Your task to perform on an android device: Open the calendar app, open the side menu, and click the "Day" option Image 0: 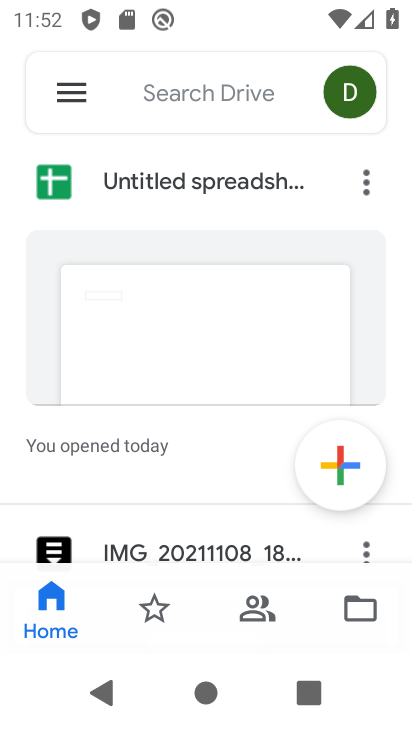
Step 0: press home button
Your task to perform on an android device: Open the calendar app, open the side menu, and click the "Day" option Image 1: 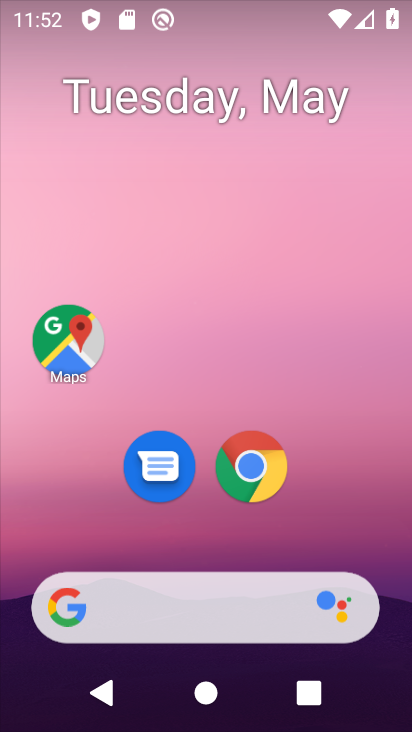
Step 1: drag from (250, 560) to (241, 28)
Your task to perform on an android device: Open the calendar app, open the side menu, and click the "Day" option Image 2: 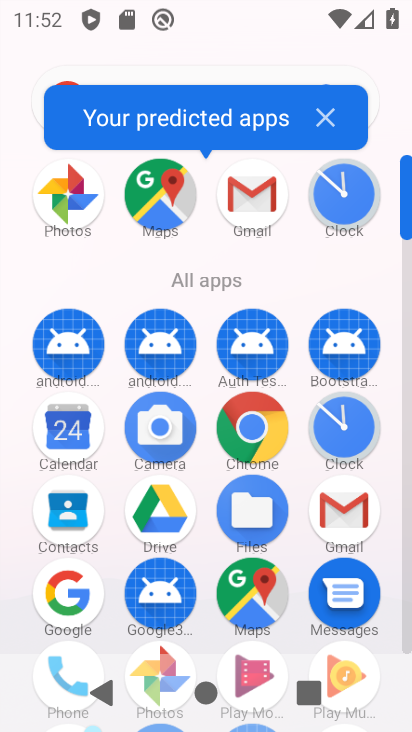
Step 2: click (85, 409)
Your task to perform on an android device: Open the calendar app, open the side menu, and click the "Day" option Image 3: 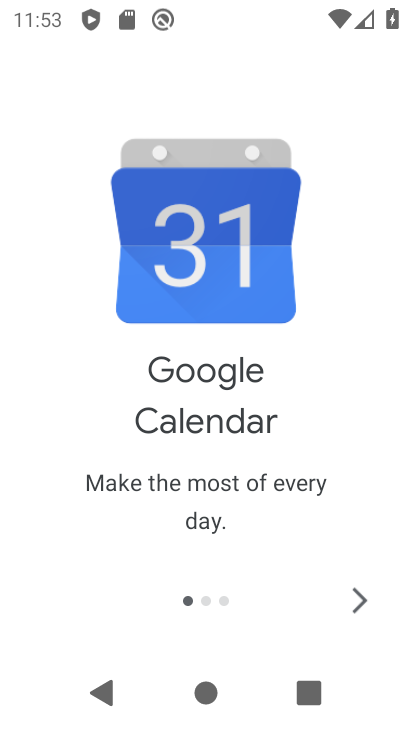
Step 3: click (382, 627)
Your task to perform on an android device: Open the calendar app, open the side menu, and click the "Day" option Image 4: 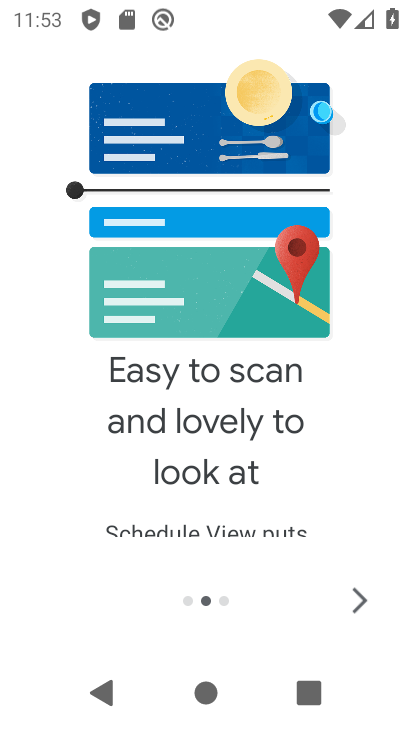
Step 4: click (348, 595)
Your task to perform on an android device: Open the calendar app, open the side menu, and click the "Day" option Image 5: 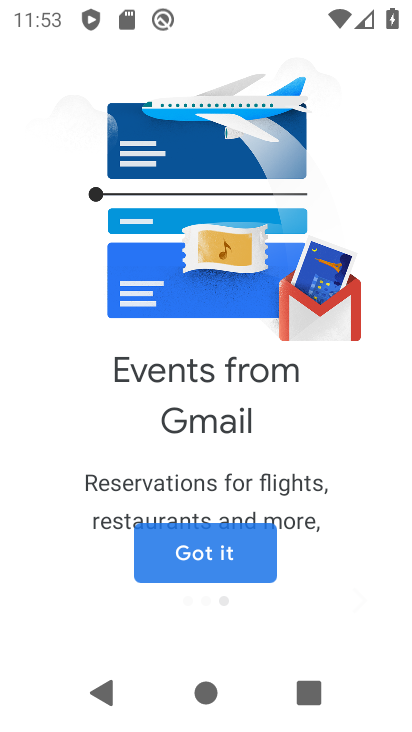
Step 5: click (349, 609)
Your task to perform on an android device: Open the calendar app, open the side menu, and click the "Day" option Image 6: 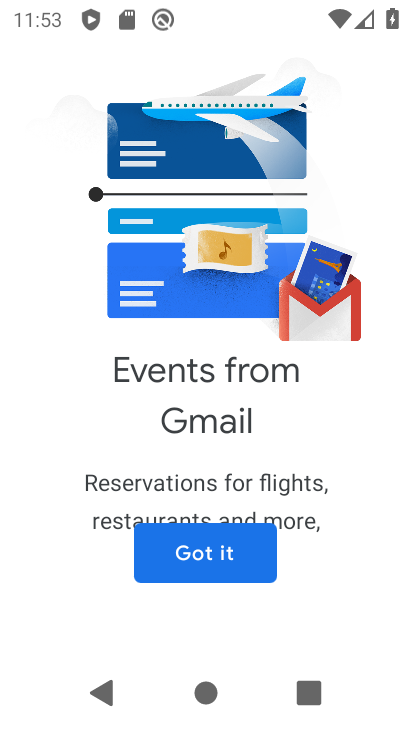
Step 6: click (231, 531)
Your task to perform on an android device: Open the calendar app, open the side menu, and click the "Day" option Image 7: 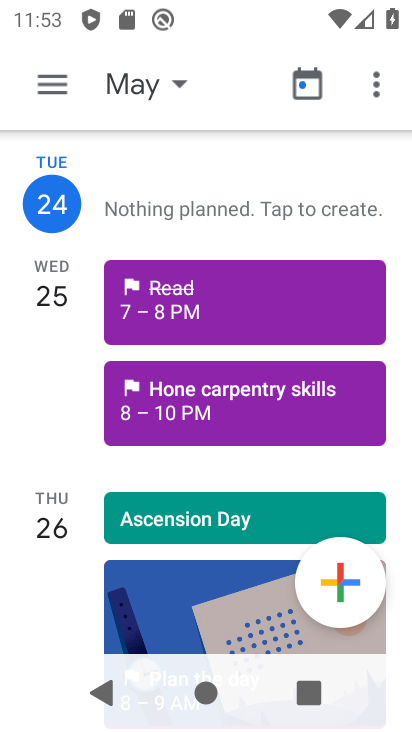
Step 7: click (55, 103)
Your task to perform on an android device: Open the calendar app, open the side menu, and click the "Day" option Image 8: 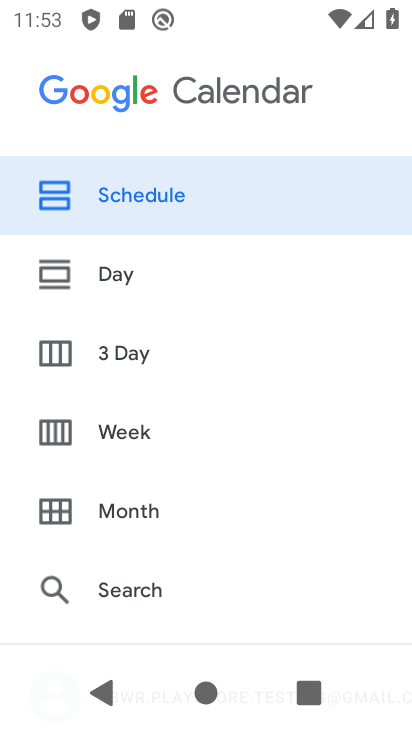
Step 8: click (55, 103)
Your task to perform on an android device: Open the calendar app, open the side menu, and click the "Day" option Image 9: 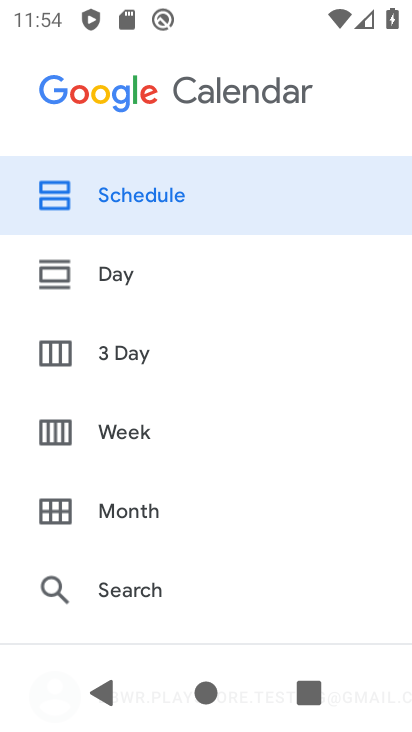
Step 9: click (280, 252)
Your task to perform on an android device: Open the calendar app, open the side menu, and click the "Day" option Image 10: 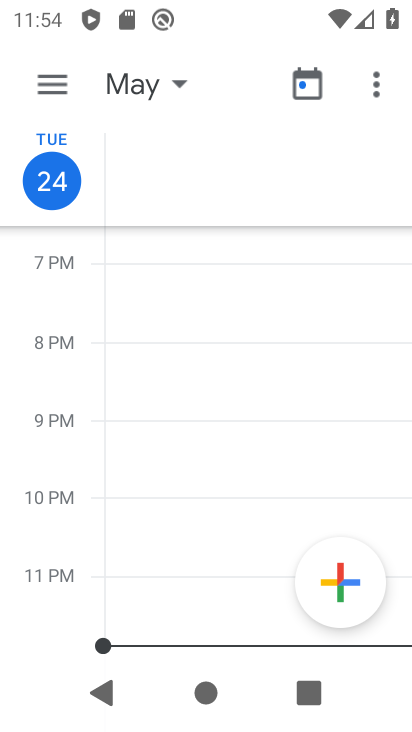
Step 10: task complete